Your task to perform on an android device: set the timer Image 0: 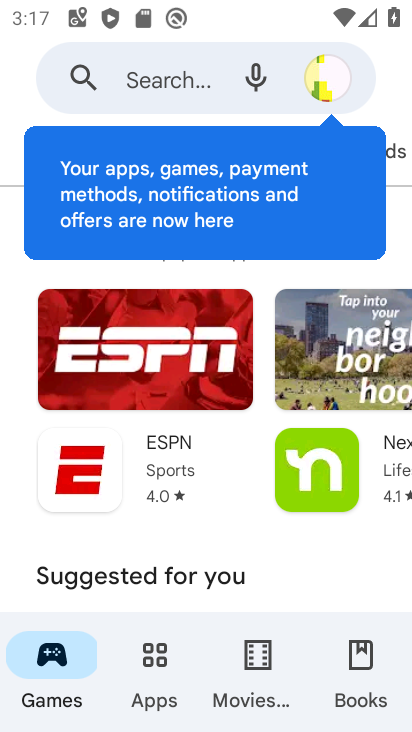
Step 0: press home button
Your task to perform on an android device: set the timer Image 1: 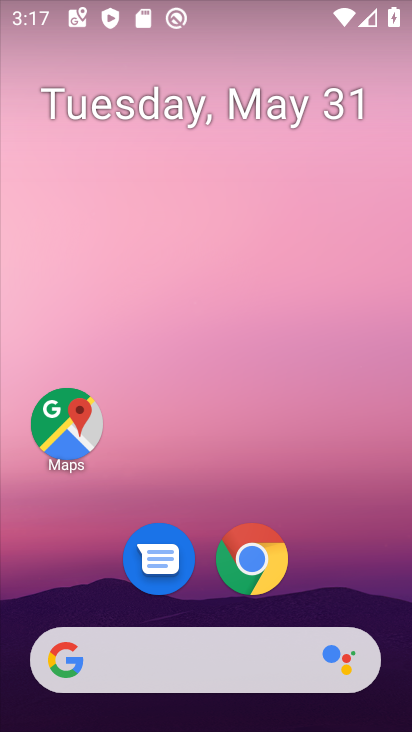
Step 1: drag from (217, 684) to (218, 83)
Your task to perform on an android device: set the timer Image 2: 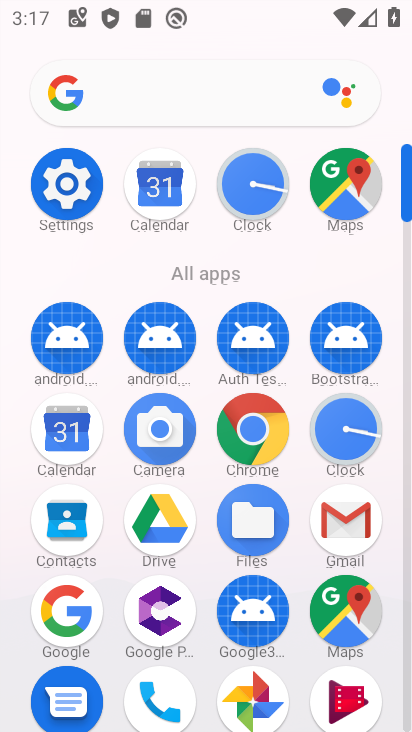
Step 2: click (340, 438)
Your task to perform on an android device: set the timer Image 3: 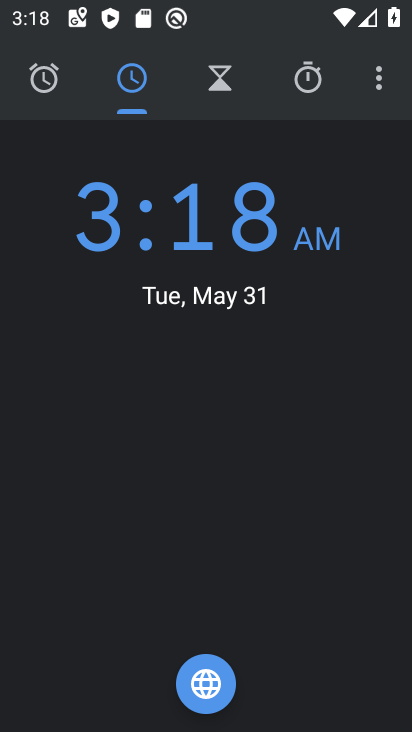
Step 3: click (218, 77)
Your task to perform on an android device: set the timer Image 4: 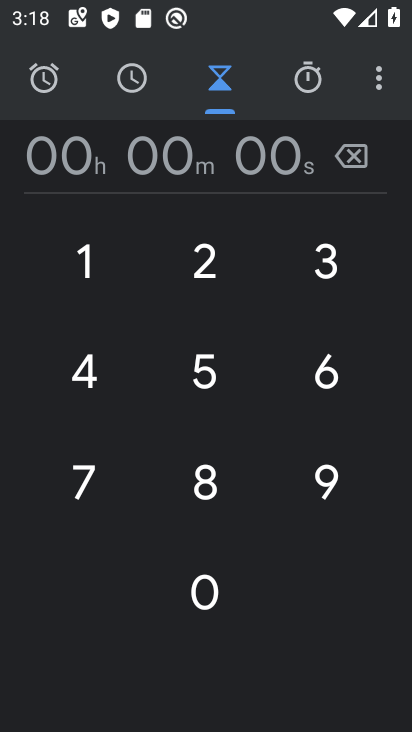
Step 4: click (200, 254)
Your task to perform on an android device: set the timer Image 5: 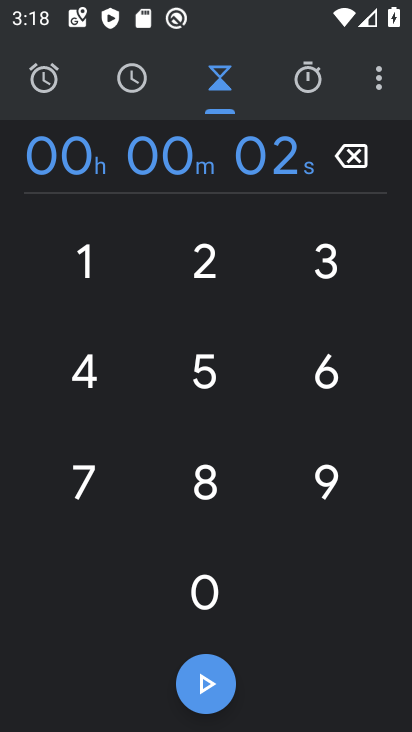
Step 5: click (78, 277)
Your task to perform on an android device: set the timer Image 6: 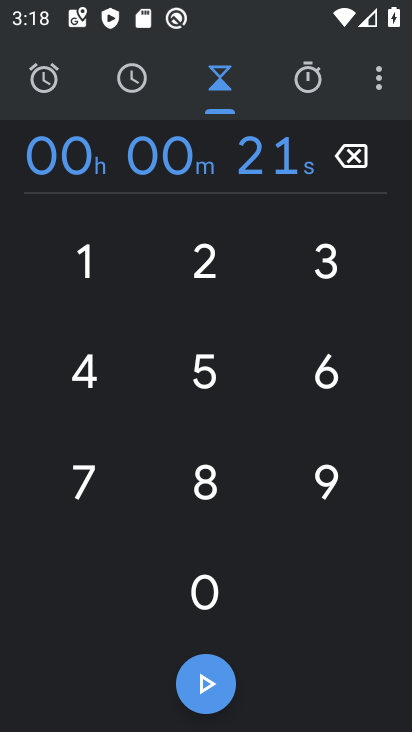
Step 6: click (210, 688)
Your task to perform on an android device: set the timer Image 7: 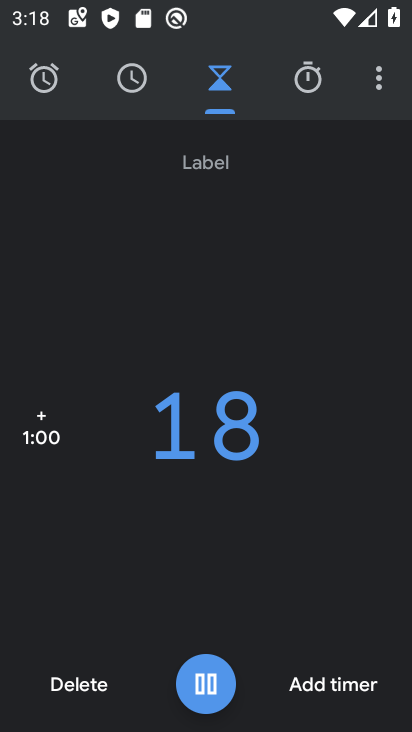
Step 7: task complete